Your task to perform on an android device: Open network settings Image 0: 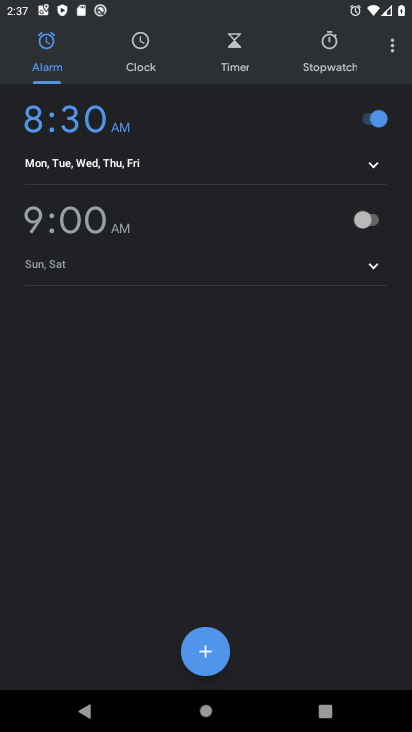
Step 0: drag from (278, 499) to (283, 292)
Your task to perform on an android device: Open network settings Image 1: 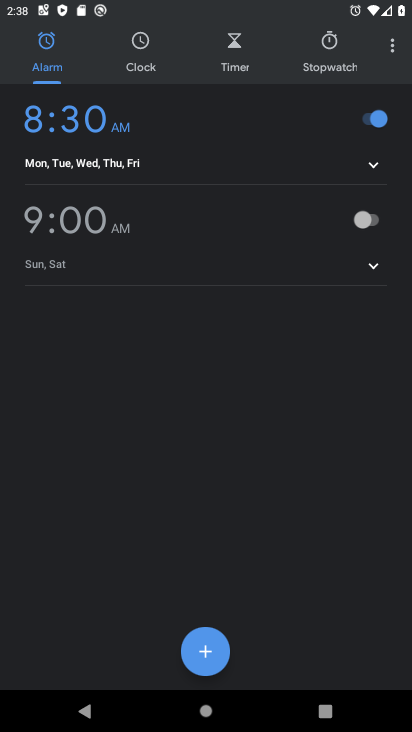
Step 1: drag from (268, 590) to (279, 379)
Your task to perform on an android device: Open network settings Image 2: 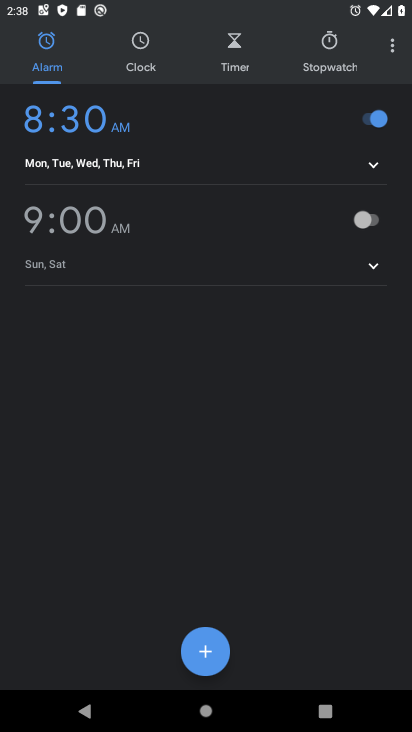
Step 2: drag from (211, 525) to (229, 188)
Your task to perform on an android device: Open network settings Image 3: 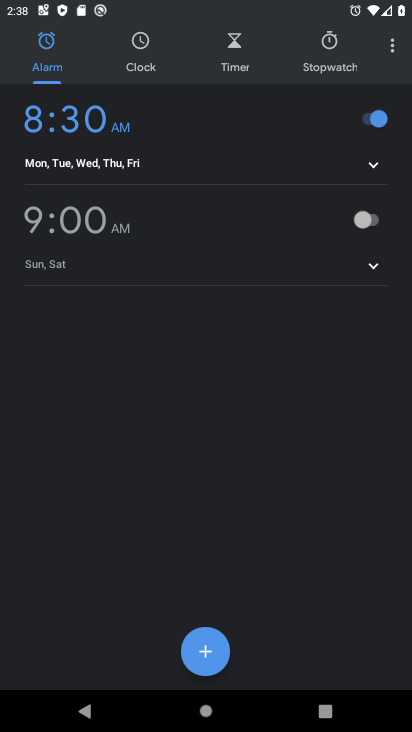
Step 3: click (392, 50)
Your task to perform on an android device: Open network settings Image 4: 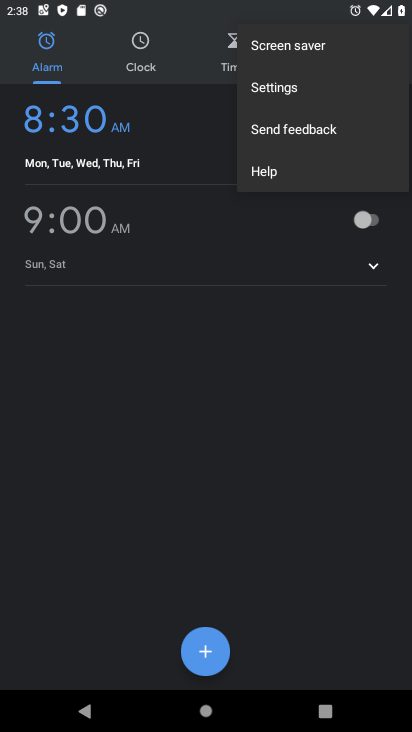
Step 4: press home button
Your task to perform on an android device: Open network settings Image 5: 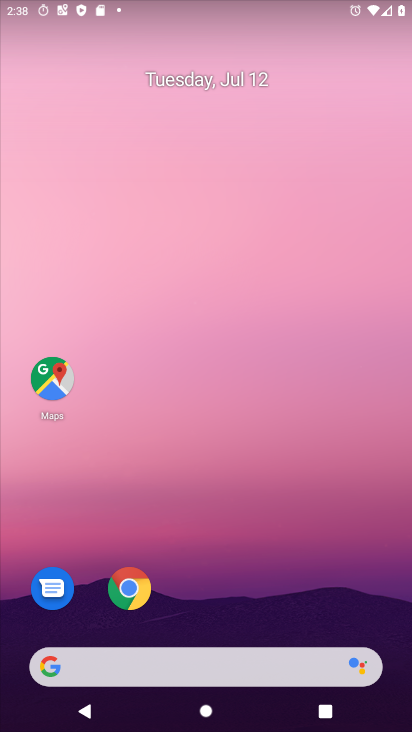
Step 5: drag from (197, 586) to (318, 186)
Your task to perform on an android device: Open network settings Image 6: 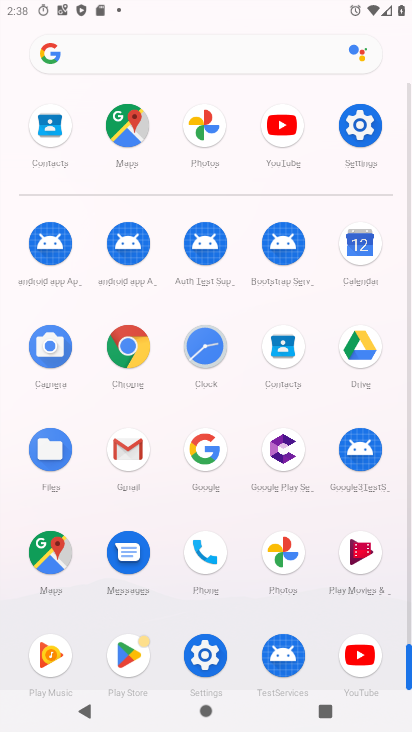
Step 6: click (356, 128)
Your task to perform on an android device: Open network settings Image 7: 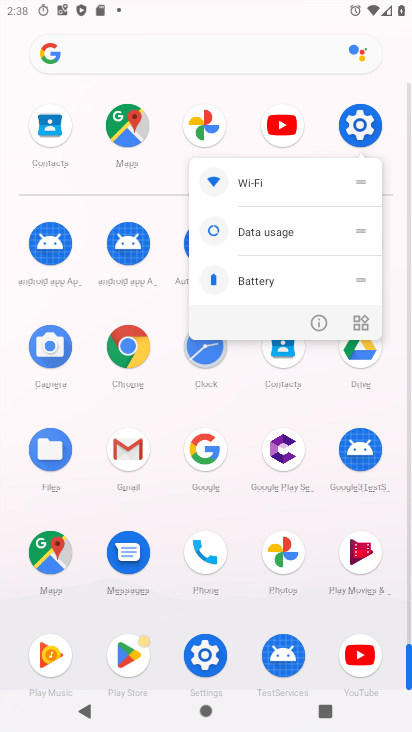
Step 7: click (322, 322)
Your task to perform on an android device: Open network settings Image 8: 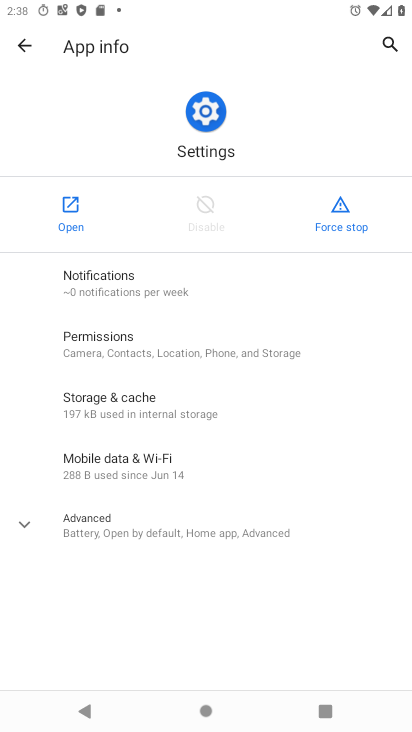
Step 8: click (87, 222)
Your task to perform on an android device: Open network settings Image 9: 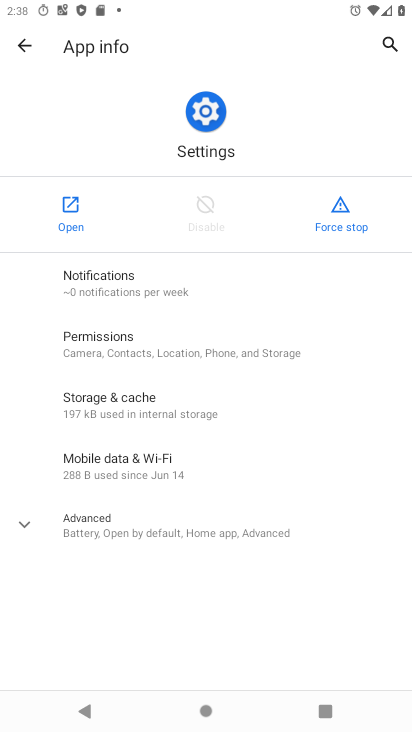
Step 9: click (87, 222)
Your task to perform on an android device: Open network settings Image 10: 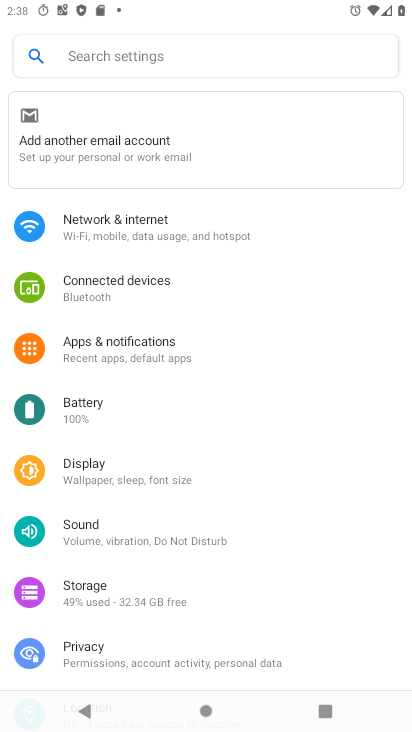
Step 10: click (106, 225)
Your task to perform on an android device: Open network settings Image 11: 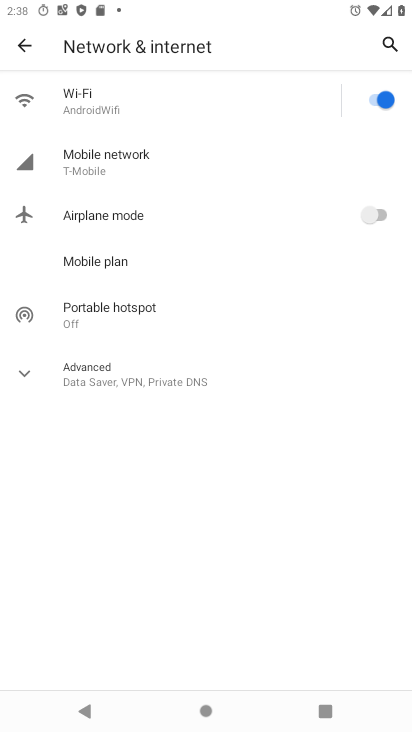
Step 11: click (168, 98)
Your task to perform on an android device: Open network settings Image 12: 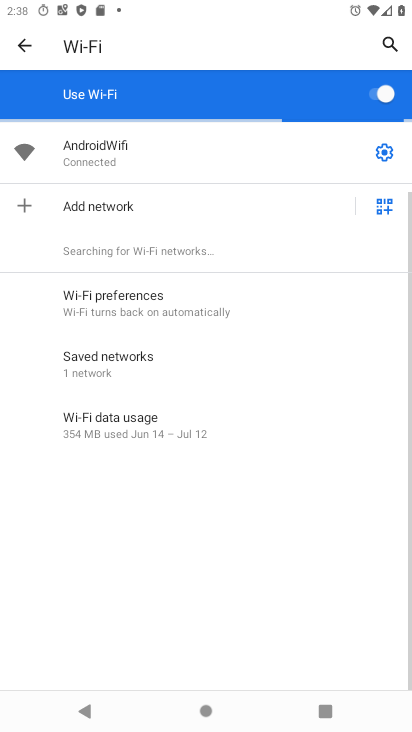
Step 12: click (27, 42)
Your task to perform on an android device: Open network settings Image 13: 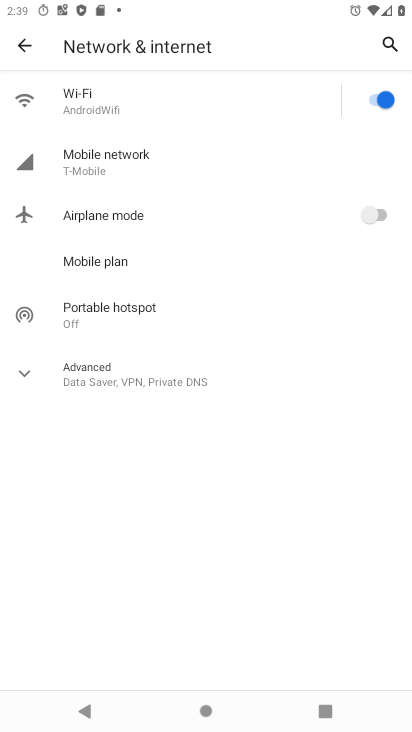
Step 13: click (136, 176)
Your task to perform on an android device: Open network settings Image 14: 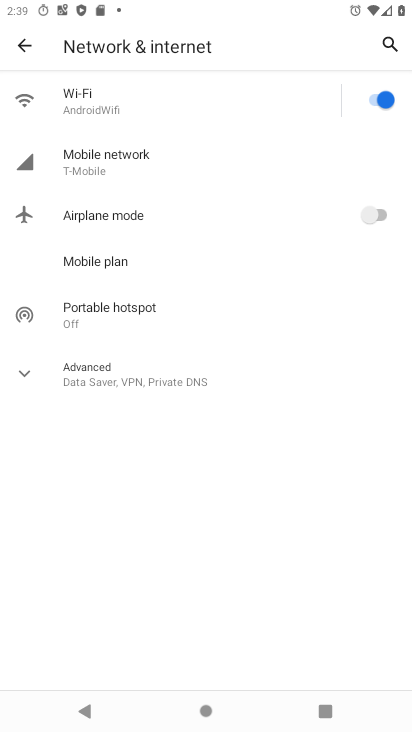
Step 14: task complete